Your task to perform on an android device: Is it going to rain this weekend? Image 0: 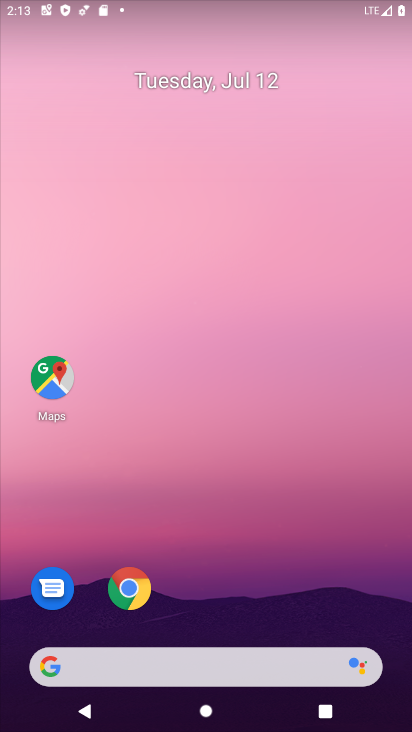
Step 0: click (297, 670)
Your task to perform on an android device: Is it going to rain this weekend? Image 1: 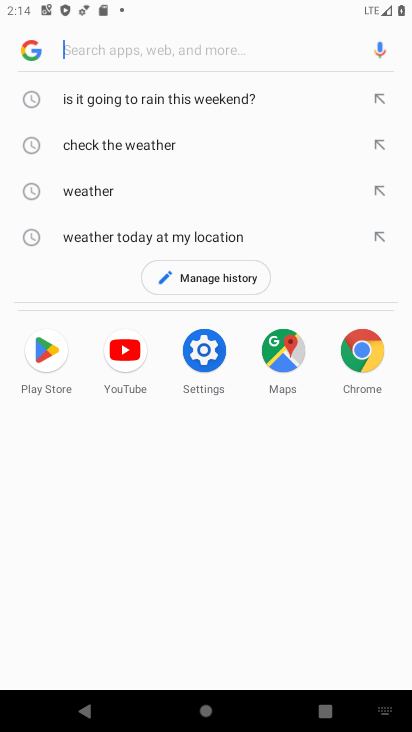
Step 1: type "Is it going to rain this weekend?"
Your task to perform on an android device: Is it going to rain this weekend? Image 2: 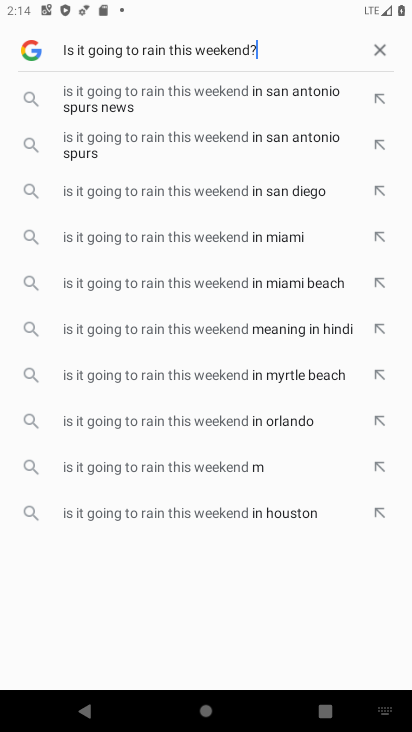
Step 2: press enter
Your task to perform on an android device: Is it going to rain this weekend? Image 3: 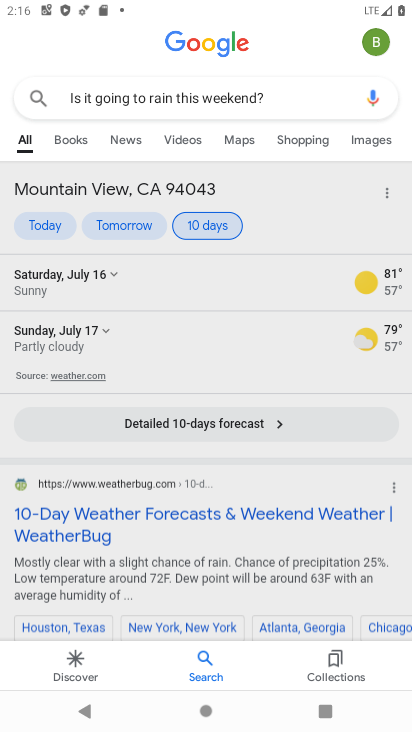
Step 3: task complete